Your task to perform on an android device: Open wifi settings Image 0: 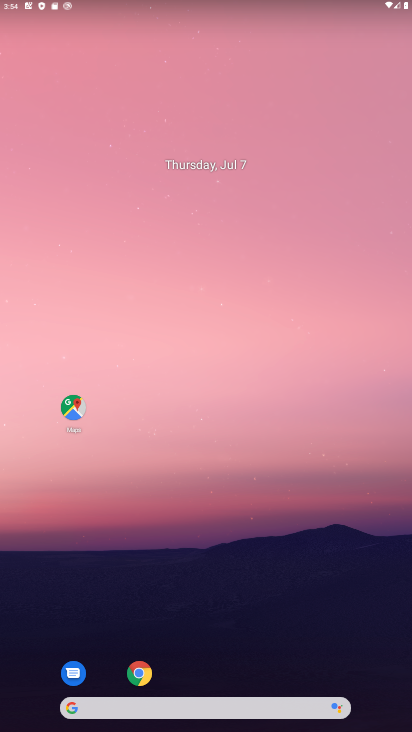
Step 0: drag from (50, 9) to (156, 568)
Your task to perform on an android device: Open wifi settings Image 1: 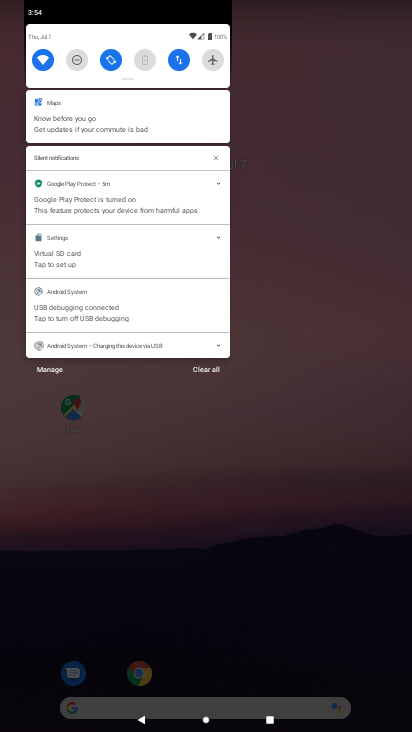
Step 1: click (43, 53)
Your task to perform on an android device: Open wifi settings Image 2: 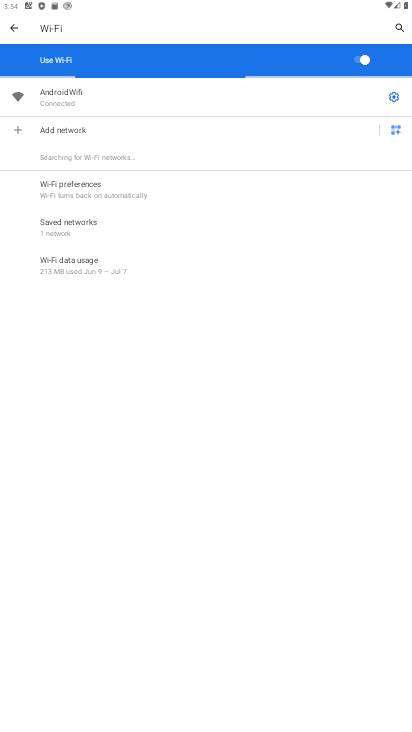
Step 2: task complete